Your task to perform on an android device: When is my next meeting? Image 0: 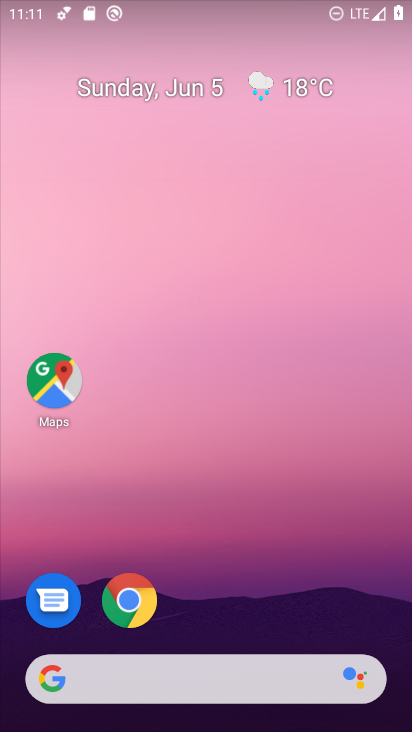
Step 0: drag from (229, 628) to (228, 165)
Your task to perform on an android device: When is my next meeting? Image 1: 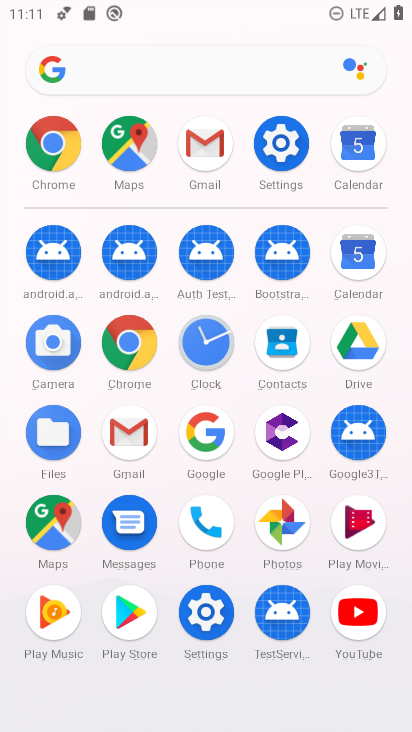
Step 1: click (345, 276)
Your task to perform on an android device: When is my next meeting? Image 2: 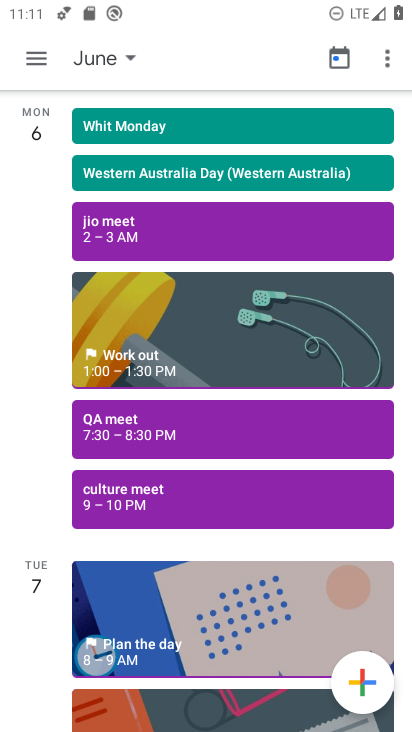
Step 2: click (120, 51)
Your task to perform on an android device: When is my next meeting? Image 3: 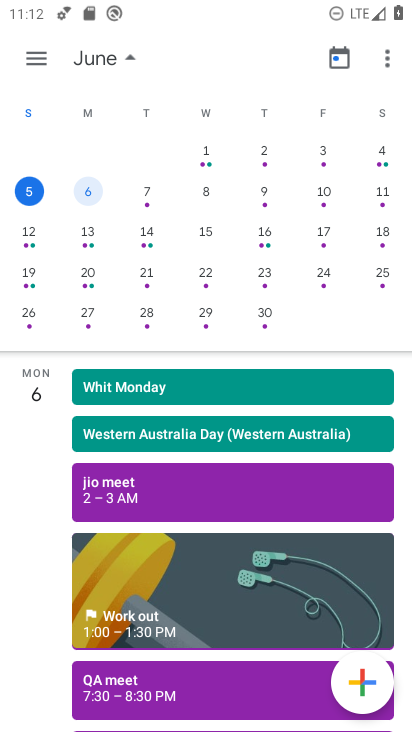
Step 3: click (125, 51)
Your task to perform on an android device: When is my next meeting? Image 4: 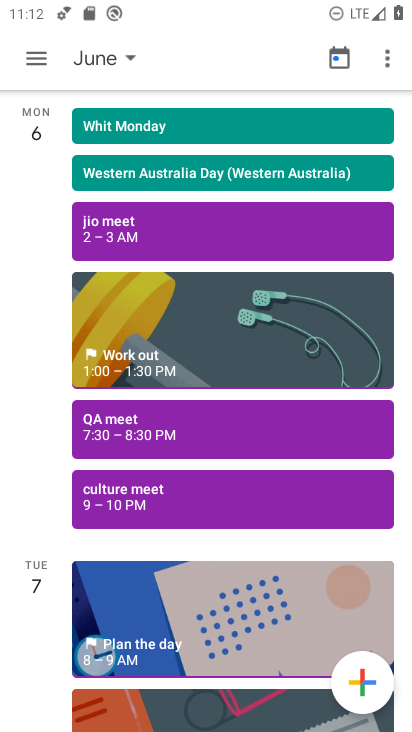
Step 4: task complete